Your task to perform on an android device: Open Chrome and go to settings Image 0: 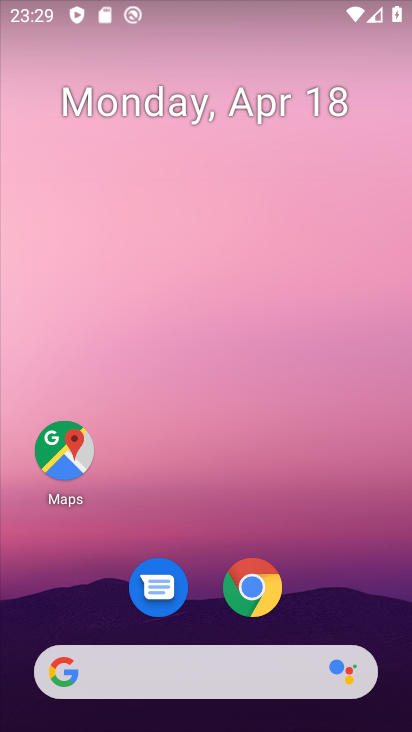
Step 0: drag from (356, 556) to (375, 141)
Your task to perform on an android device: Open Chrome and go to settings Image 1: 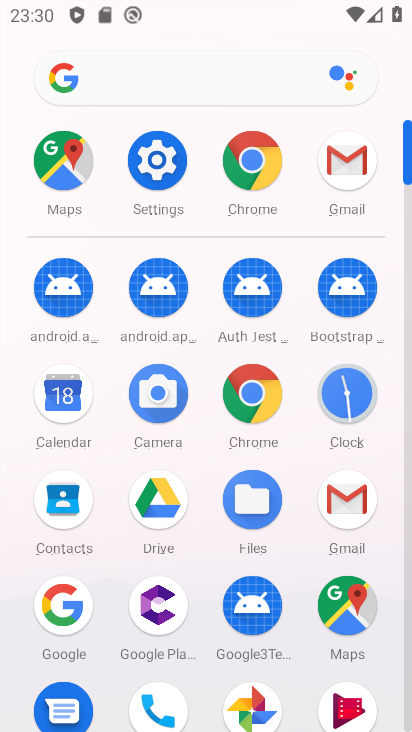
Step 1: click (247, 176)
Your task to perform on an android device: Open Chrome and go to settings Image 2: 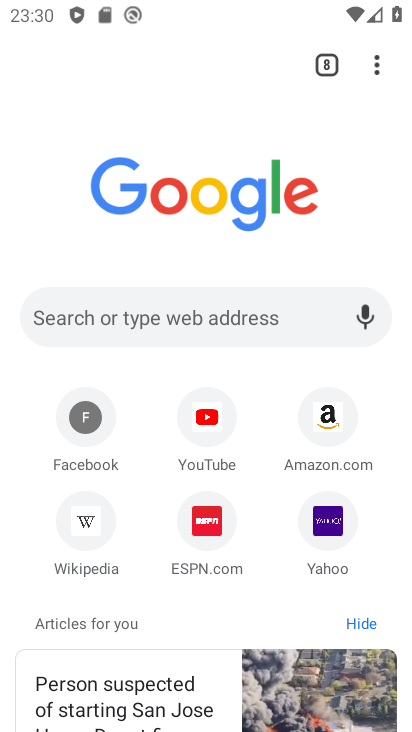
Step 2: click (385, 72)
Your task to perform on an android device: Open Chrome and go to settings Image 3: 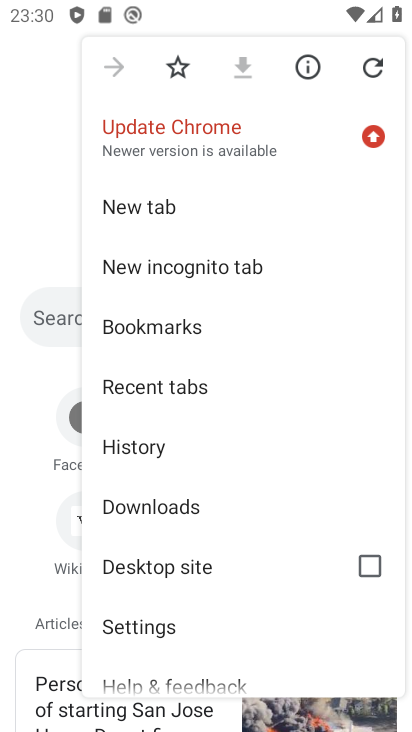
Step 3: drag from (243, 588) to (306, 301)
Your task to perform on an android device: Open Chrome and go to settings Image 4: 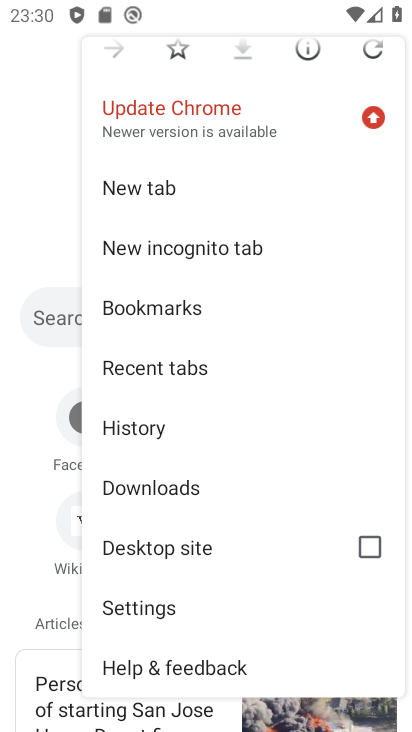
Step 4: click (166, 614)
Your task to perform on an android device: Open Chrome and go to settings Image 5: 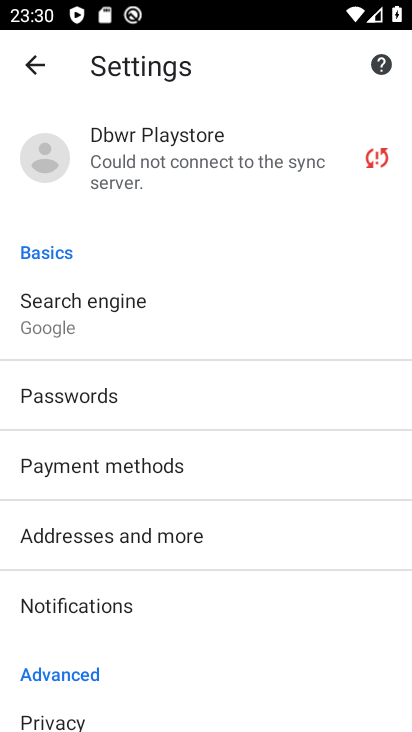
Step 5: task complete